Your task to perform on an android device: Go to Google Image 0: 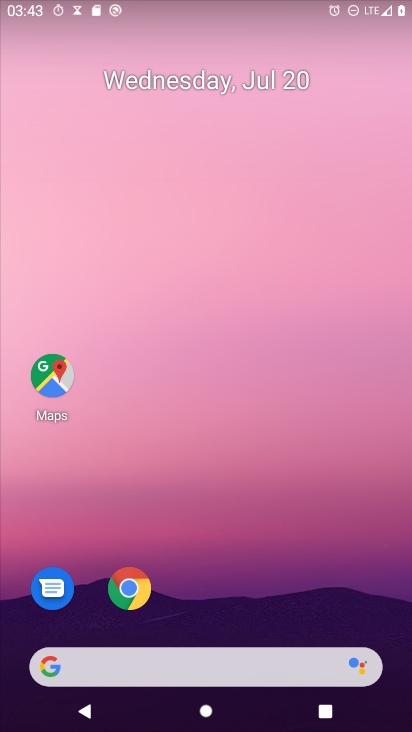
Step 0: click (148, 670)
Your task to perform on an android device: Go to Google Image 1: 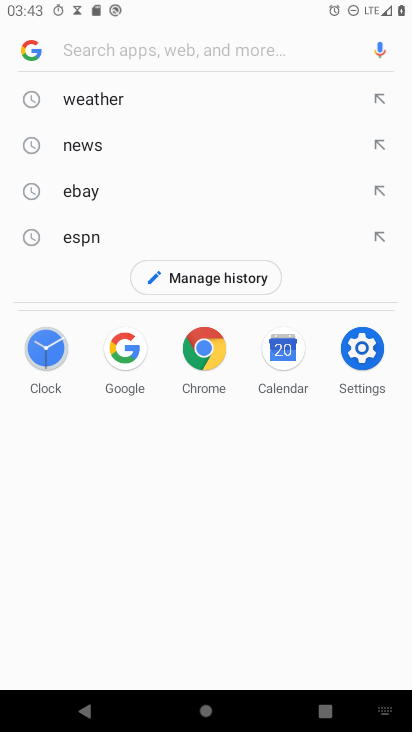
Step 1: task complete